Your task to perform on an android device: turn pop-ups on in chrome Image 0: 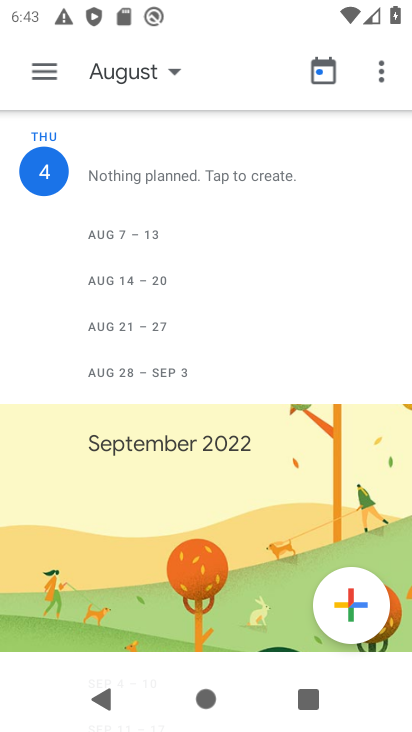
Step 0: press home button
Your task to perform on an android device: turn pop-ups on in chrome Image 1: 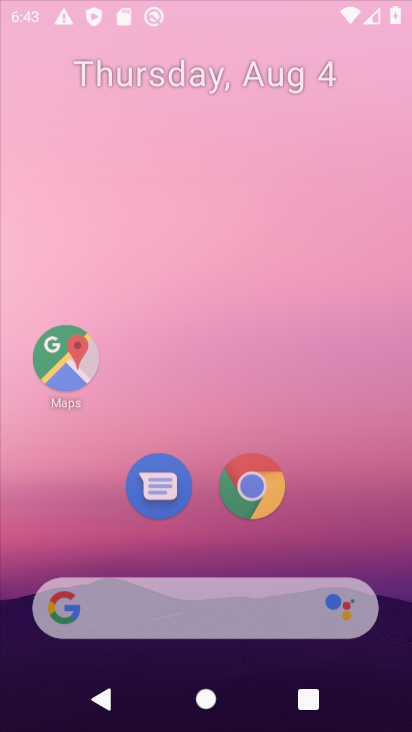
Step 1: drag from (386, 640) to (163, 2)
Your task to perform on an android device: turn pop-ups on in chrome Image 2: 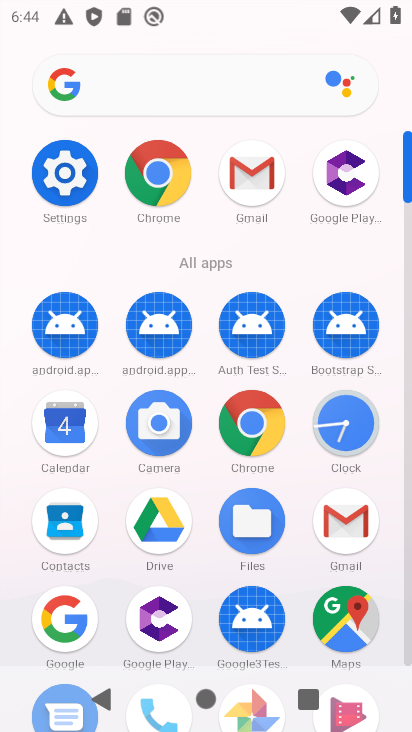
Step 2: click (264, 428)
Your task to perform on an android device: turn pop-ups on in chrome Image 3: 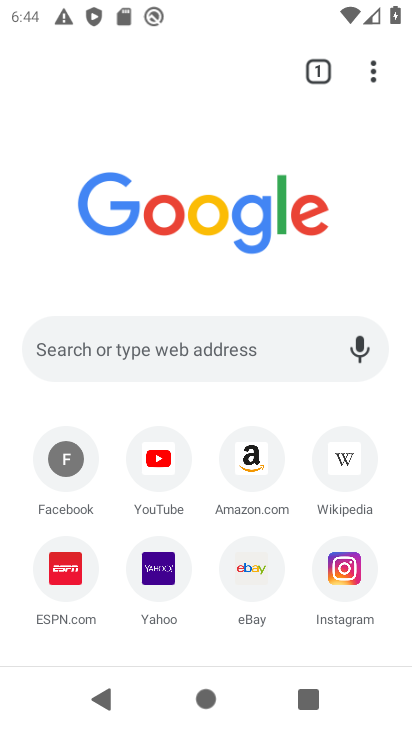
Step 3: click (373, 70)
Your task to perform on an android device: turn pop-ups on in chrome Image 4: 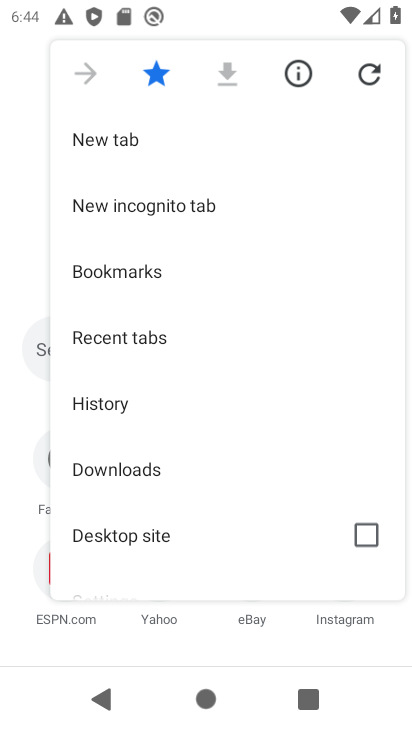
Step 4: drag from (142, 542) to (149, 94)
Your task to perform on an android device: turn pop-ups on in chrome Image 5: 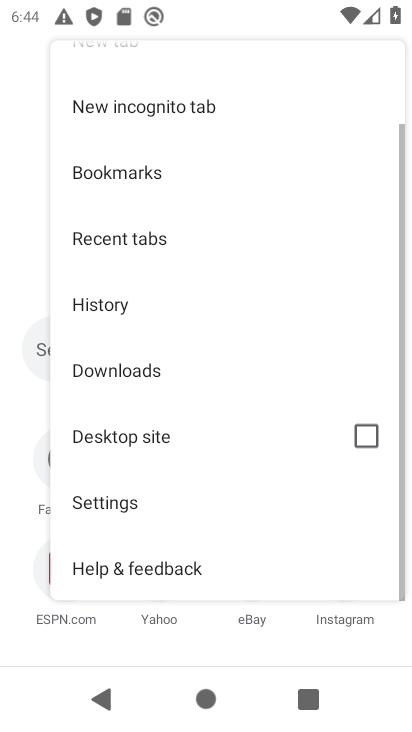
Step 5: click (135, 497)
Your task to perform on an android device: turn pop-ups on in chrome Image 6: 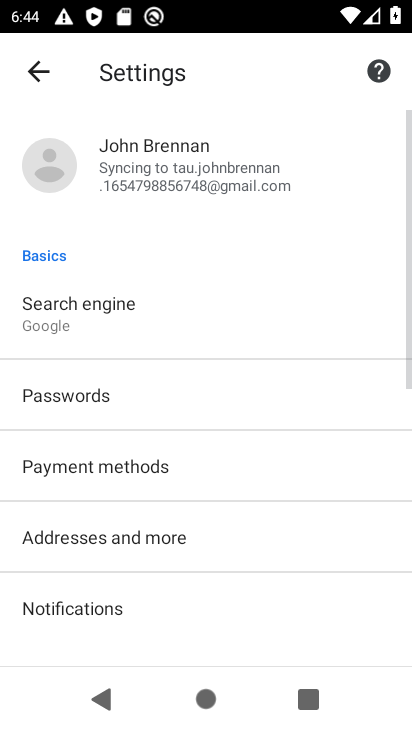
Step 6: drag from (100, 650) to (97, 117)
Your task to perform on an android device: turn pop-ups on in chrome Image 7: 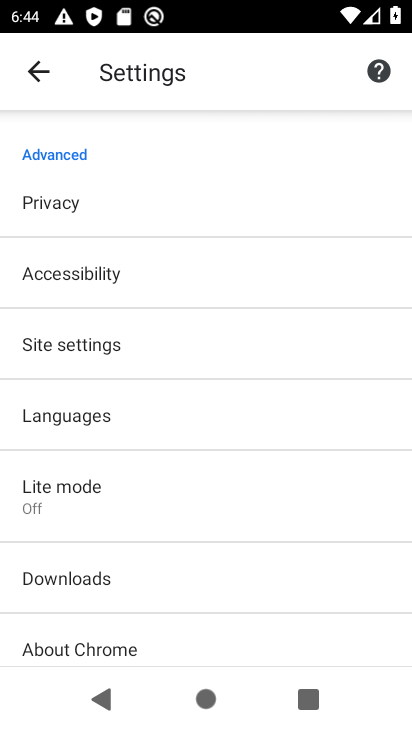
Step 7: click (108, 346)
Your task to perform on an android device: turn pop-ups on in chrome Image 8: 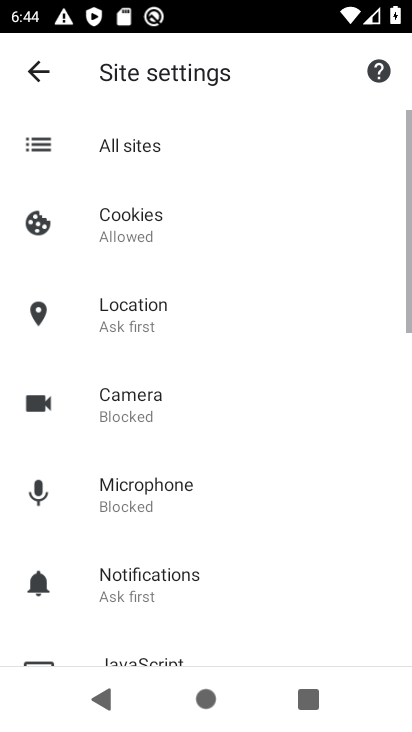
Step 8: drag from (161, 599) to (199, 71)
Your task to perform on an android device: turn pop-ups on in chrome Image 9: 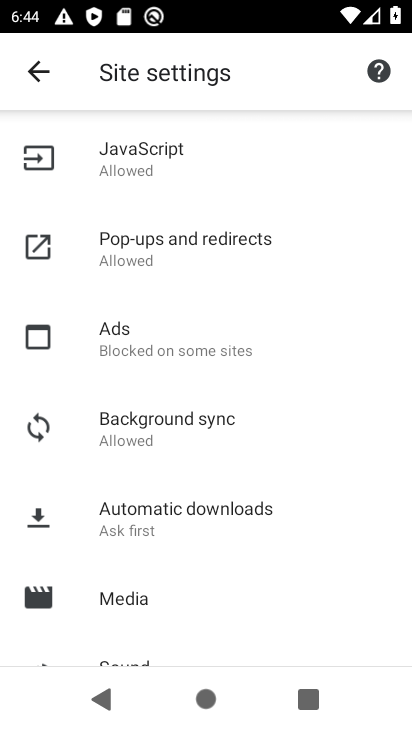
Step 9: click (199, 257)
Your task to perform on an android device: turn pop-ups on in chrome Image 10: 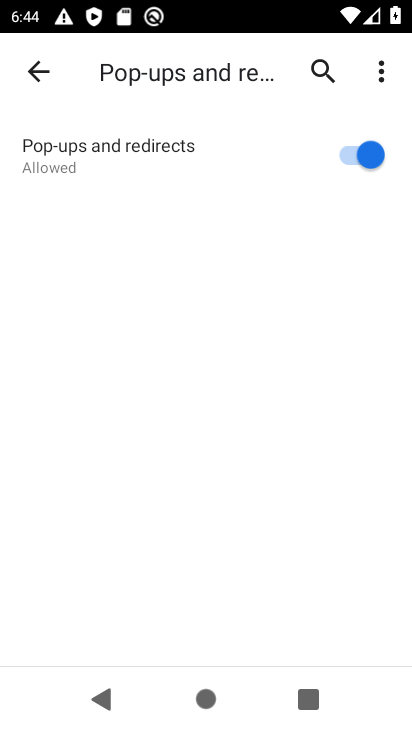
Step 10: task complete